Your task to perform on an android device: Open Google Maps and go to "Timeline" Image 0: 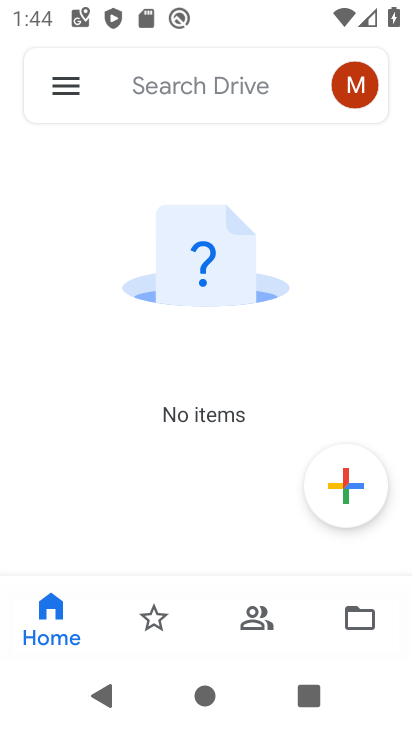
Step 0: click (63, 79)
Your task to perform on an android device: Open Google Maps and go to "Timeline" Image 1: 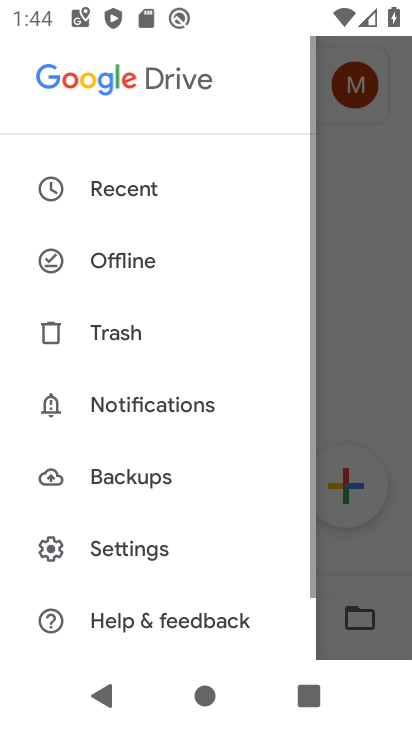
Step 1: press back button
Your task to perform on an android device: Open Google Maps and go to "Timeline" Image 2: 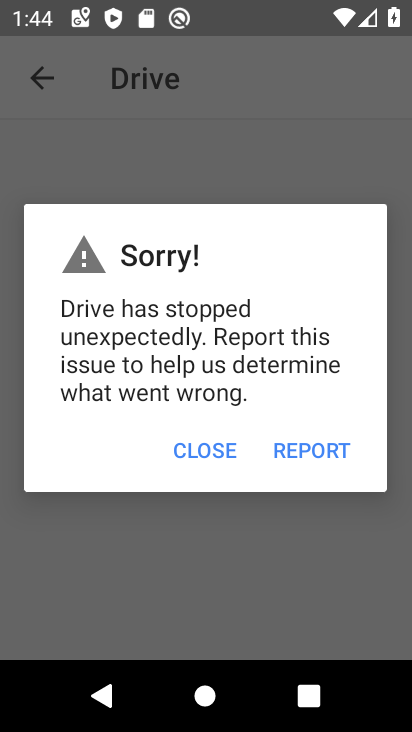
Step 2: click (217, 439)
Your task to perform on an android device: Open Google Maps and go to "Timeline" Image 3: 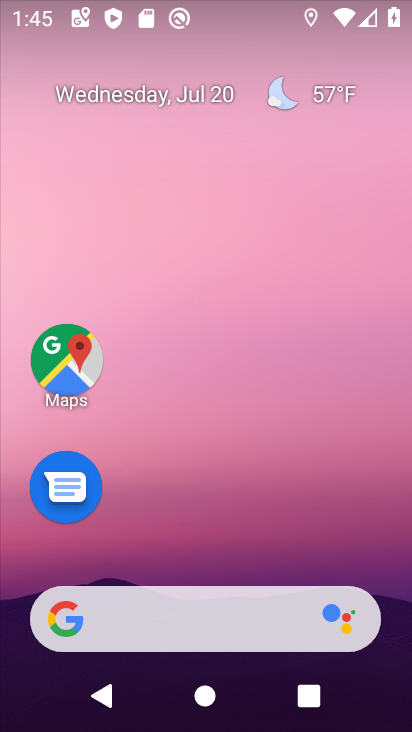
Step 3: click (64, 369)
Your task to perform on an android device: Open Google Maps and go to "Timeline" Image 4: 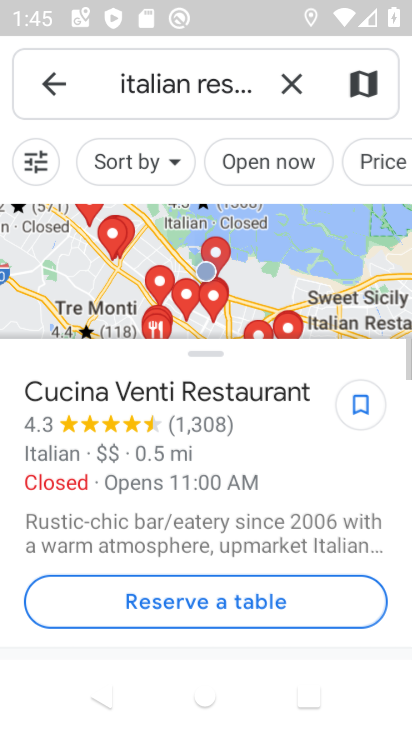
Step 4: click (50, 87)
Your task to perform on an android device: Open Google Maps and go to "Timeline" Image 5: 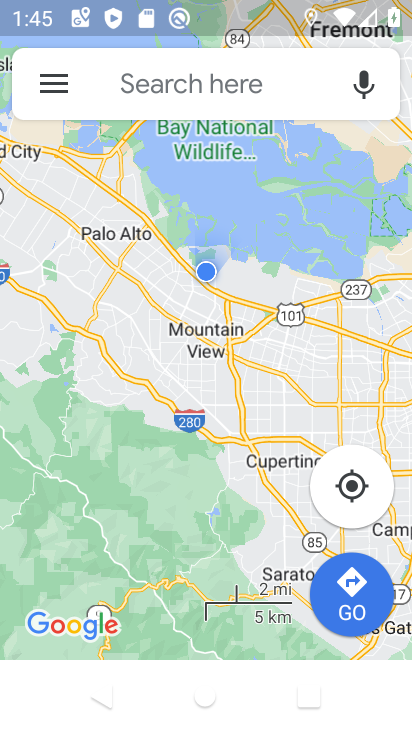
Step 5: click (52, 77)
Your task to perform on an android device: Open Google Maps and go to "Timeline" Image 6: 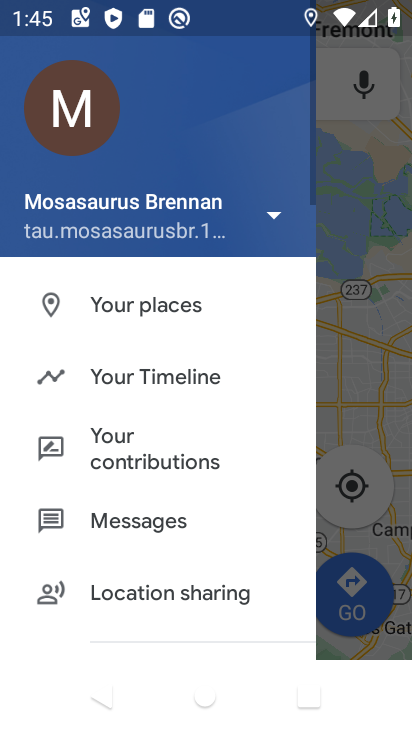
Step 6: click (159, 369)
Your task to perform on an android device: Open Google Maps and go to "Timeline" Image 7: 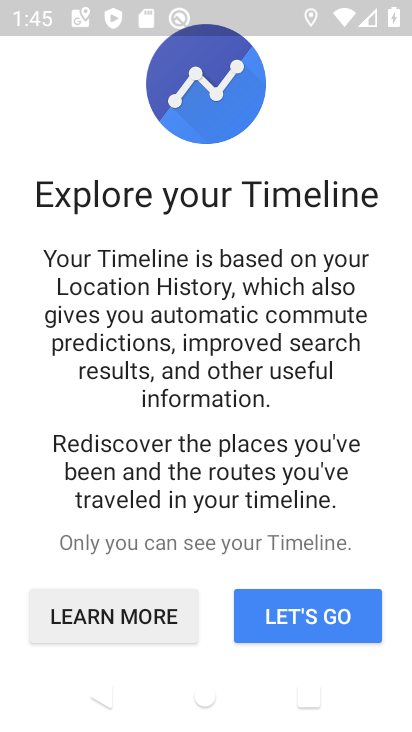
Step 7: click (316, 624)
Your task to perform on an android device: Open Google Maps and go to "Timeline" Image 8: 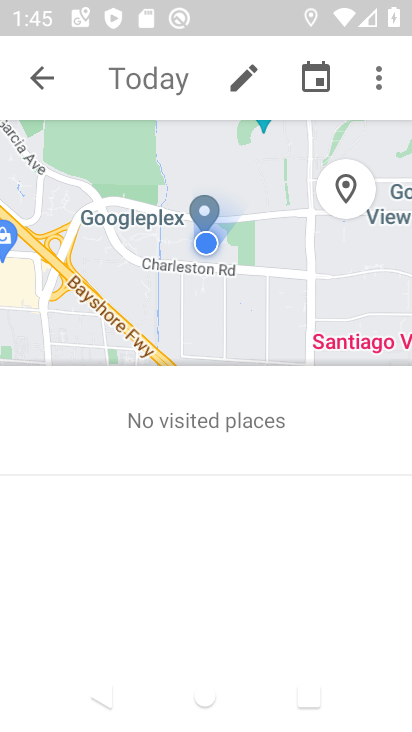
Step 8: task complete